Your task to perform on an android device: Search for flights from Seoul to Mexico city Image 0: 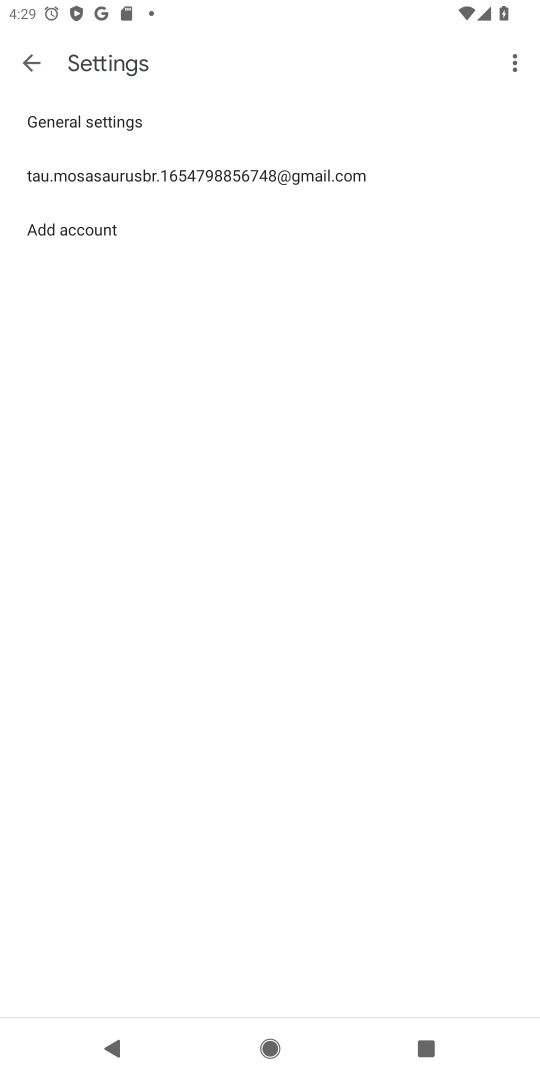
Step 0: press home button
Your task to perform on an android device: Search for flights from Seoul to Mexico city Image 1: 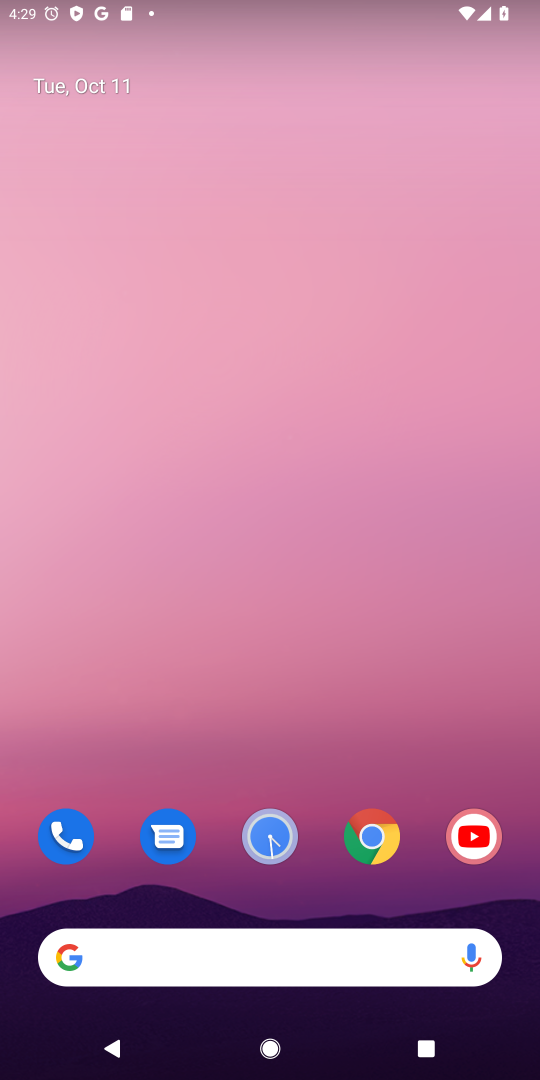
Step 1: click (287, 964)
Your task to perform on an android device: Search for flights from Seoul to Mexico city Image 2: 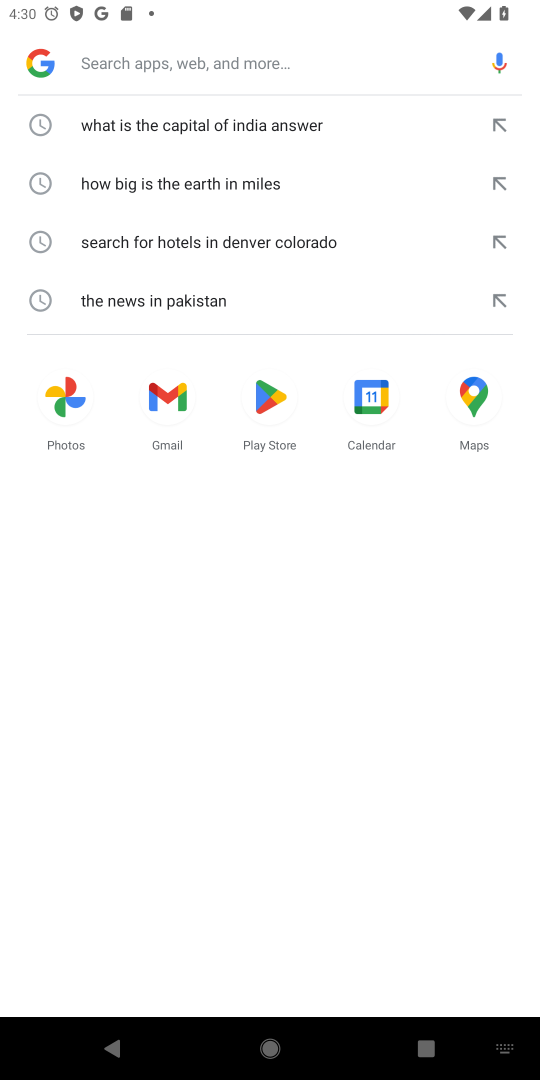
Step 2: type "Search for flights from Seoul to Mexico city"
Your task to perform on an android device: Search for flights from Seoul to Mexico city Image 3: 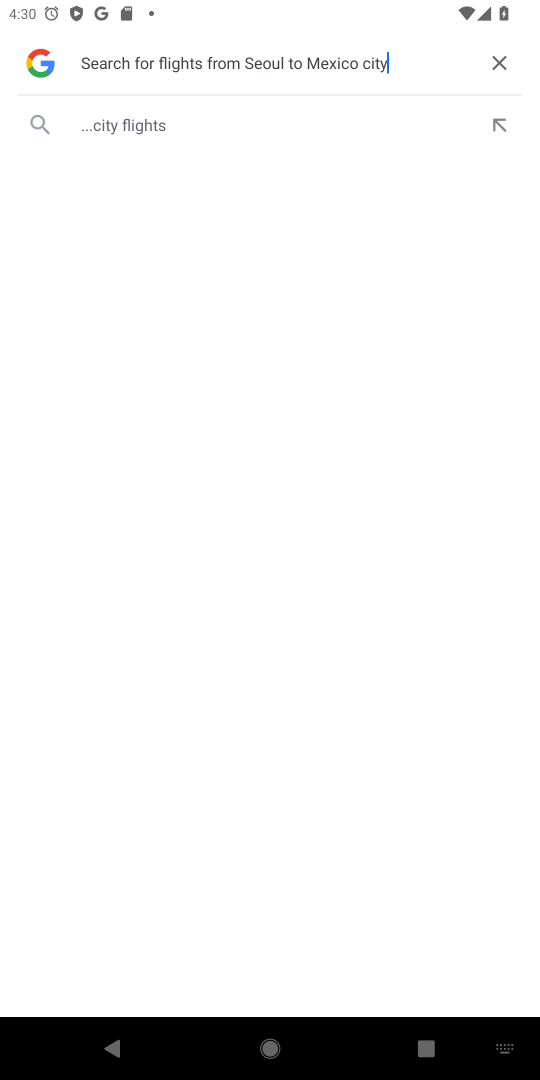
Step 3: click (154, 149)
Your task to perform on an android device: Search for flights from Seoul to Mexico city Image 4: 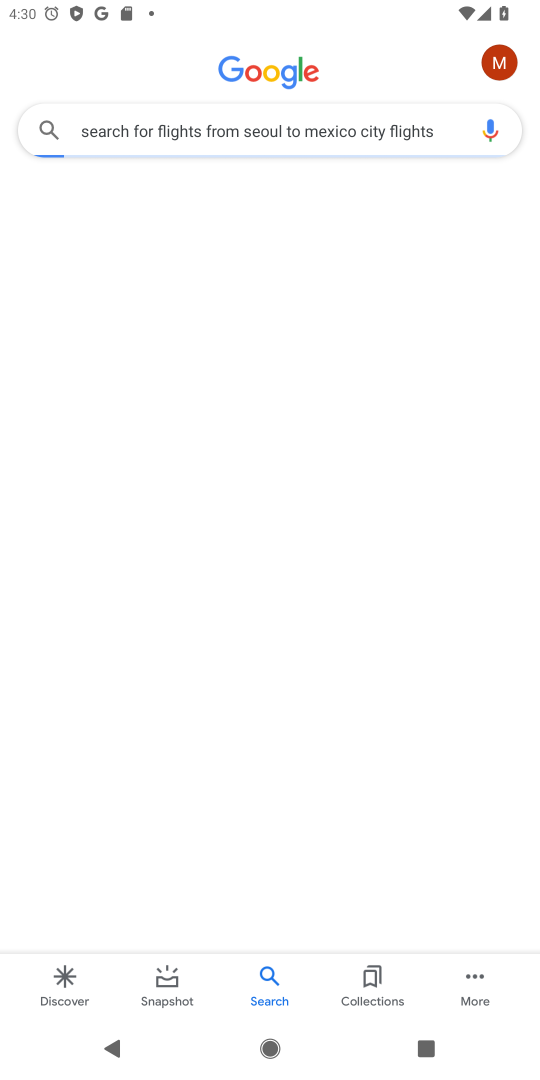
Step 4: task complete